Your task to perform on an android device: Find coffee shops on Maps Image 0: 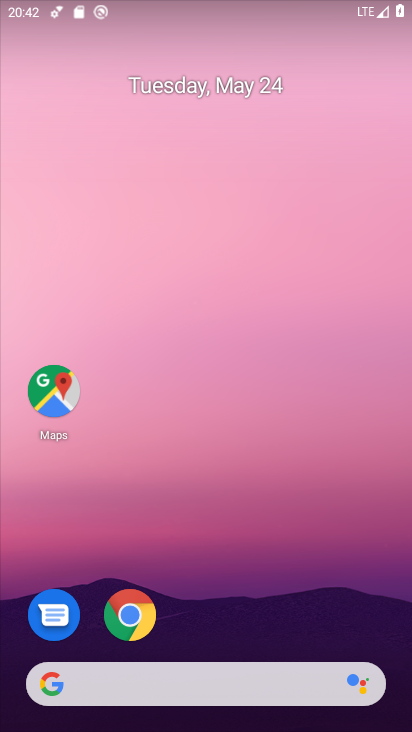
Step 0: drag from (250, 602) to (211, 185)
Your task to perform on an android device: Find coffee shops on Maps Image 1: 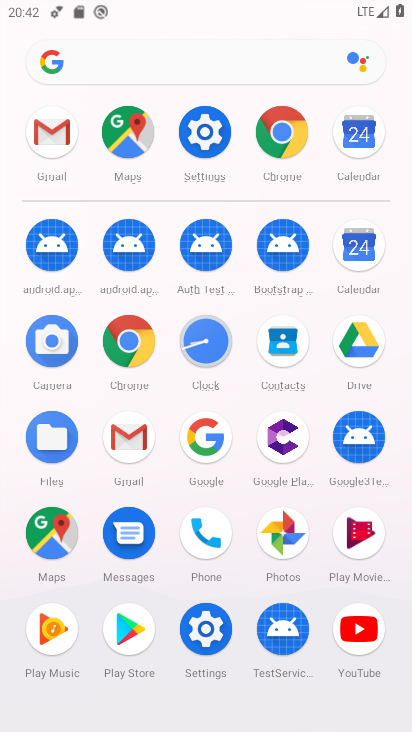
Step 1: click (122, 131)
Your task to perform on an android device: Find coffee shops on Maps Image 2: 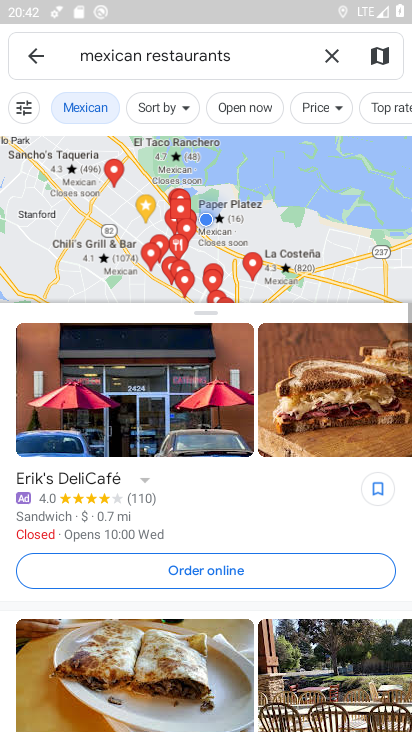
Step 2: click (333, 53)
Your task to perform on an android device: Find coffee shops on Maps Image 3: 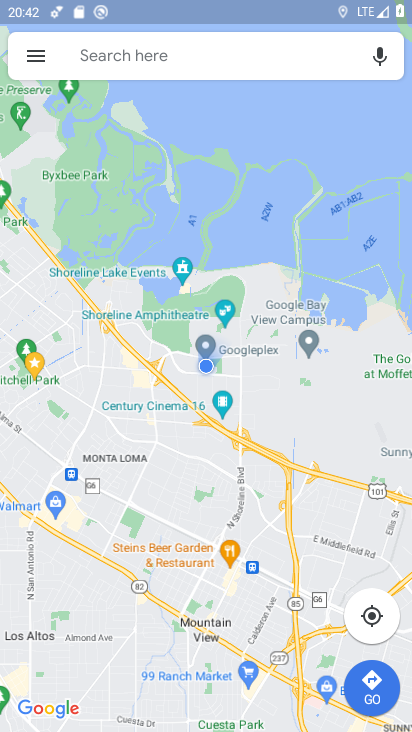
Step 3: click (148, 53)
Your task to perform on an android device: Find coffee shops on Maps Image 4: 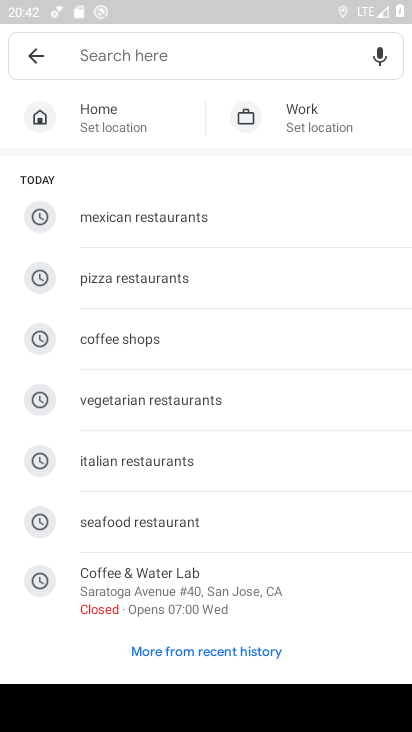
Step 4: type "coffee shops"
Your task to perform on an android device: Find coffee shops on Maps Image 5: 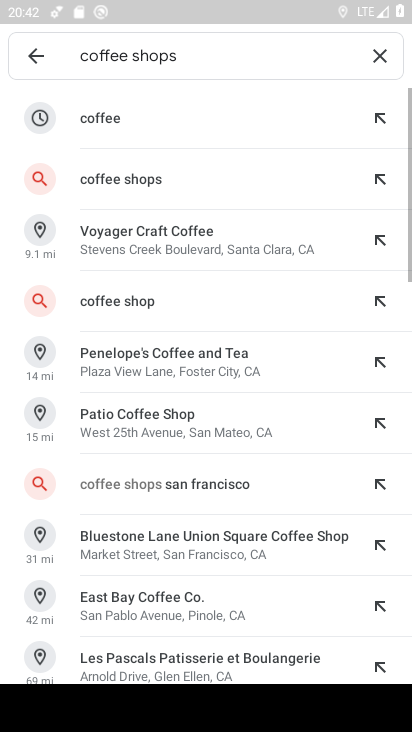
Step 5: click (156, 111)
Your task to perform on an android device: Find coffee shops on Maps Image 6: 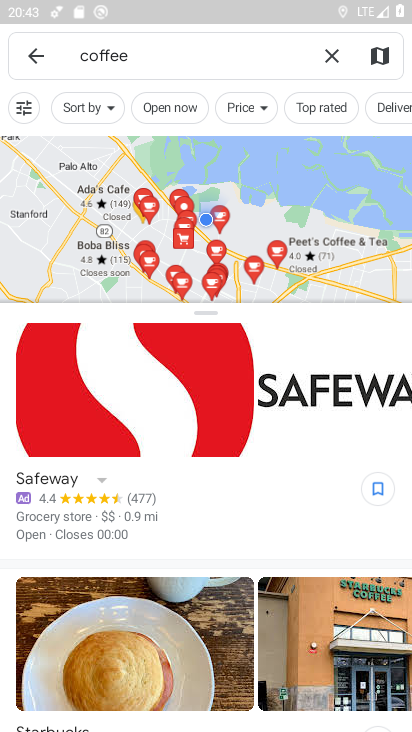
Step 6: task complete